Your task to perform on an android device: Open eBay Image 0: 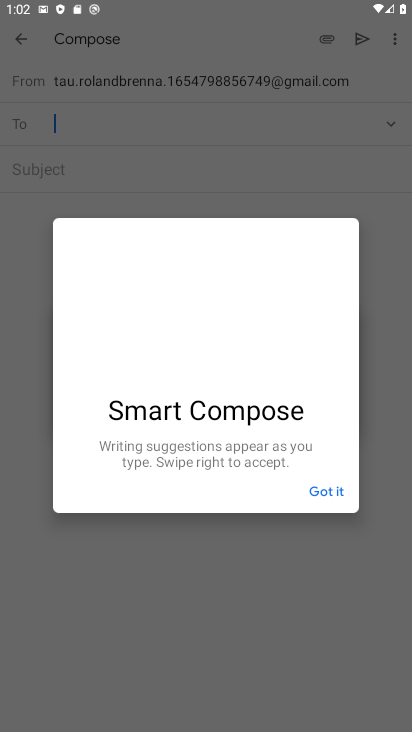
Step 0: press home button
Your task to perform on an android device: Open eBay Image 1: 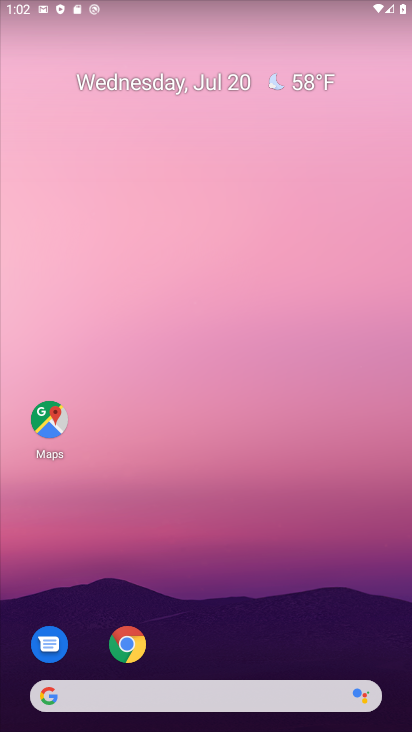
Step 1: drag from (191, 634) to (175, 107)
Your task to perform on an android device: Open eBay Image 2: 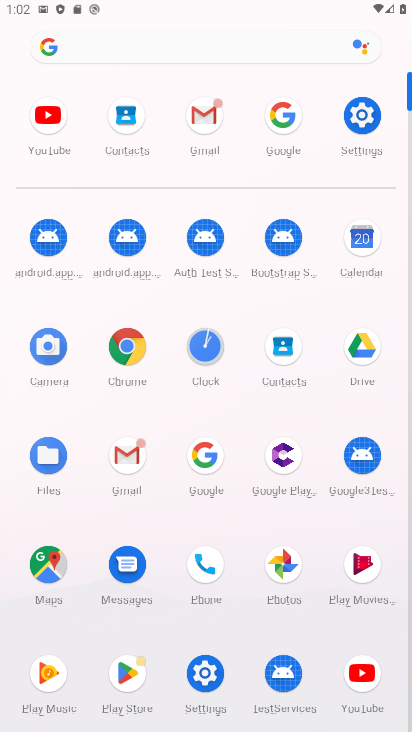
Step 2: click (202, 458)
Your task to perform on an android device: Open eBay Image 3: 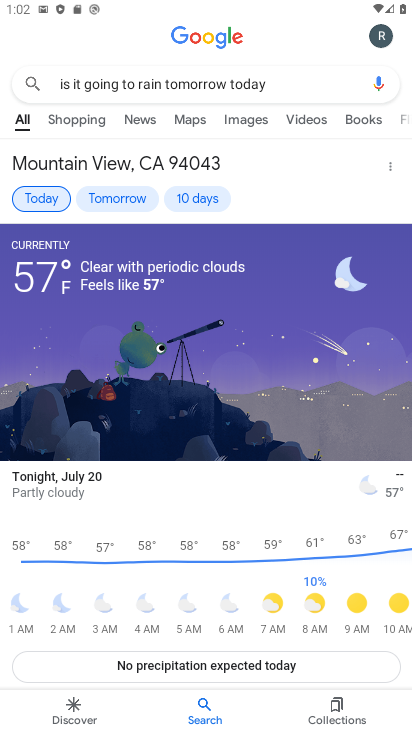
Step 3: click (283, 78)
Your task to perform on an android device: Open eBay Image 4: 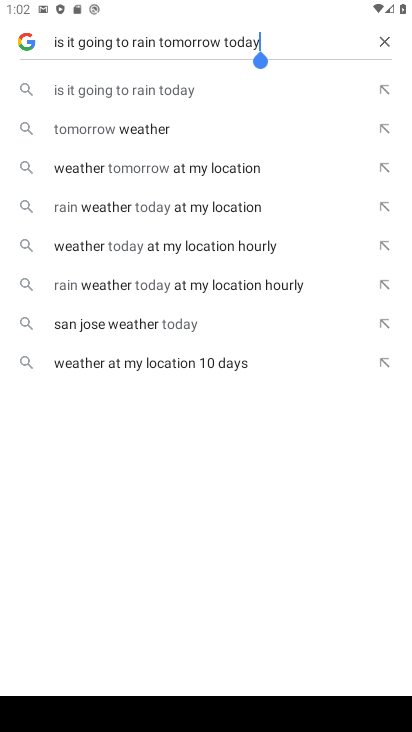
Step 4: click (378, 41)
Your task to perform on an android device: Open eBay Image 5: 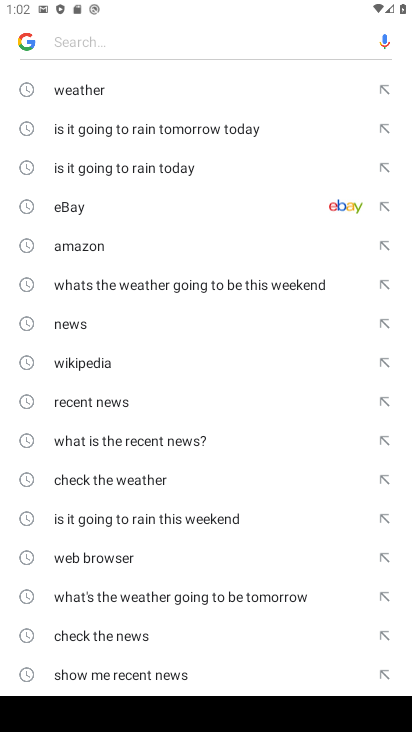
Step 5: click (125, 199)
Your task to perform on an android device: Open eBay Image 6: 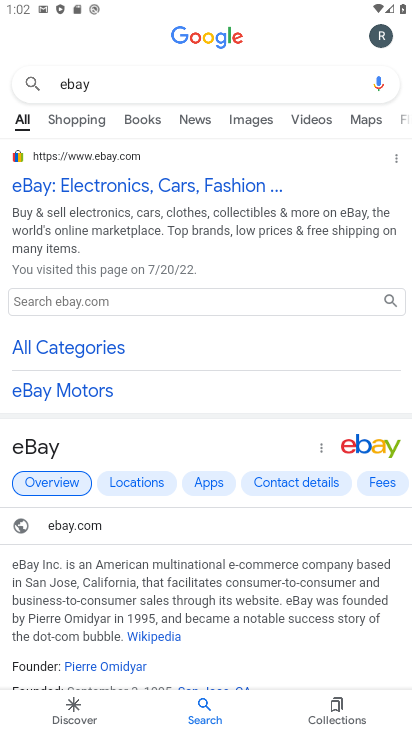
Step 6: click (150, 185)
Your task to perform on an android device: Open eBay Image 7: 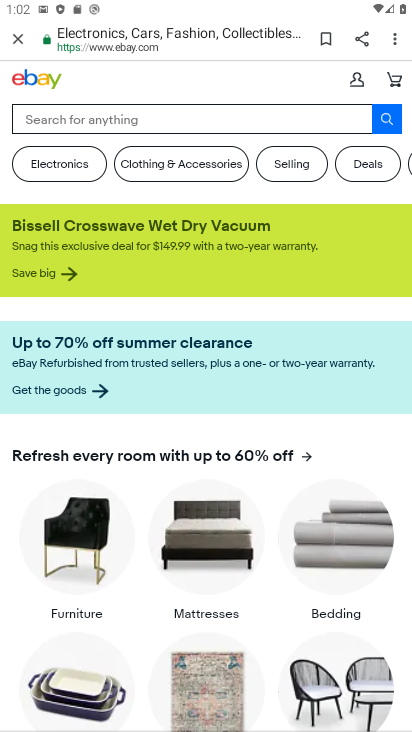
Step 7: task complete